Your task to perform on an android device: Open notification settings Image 0: 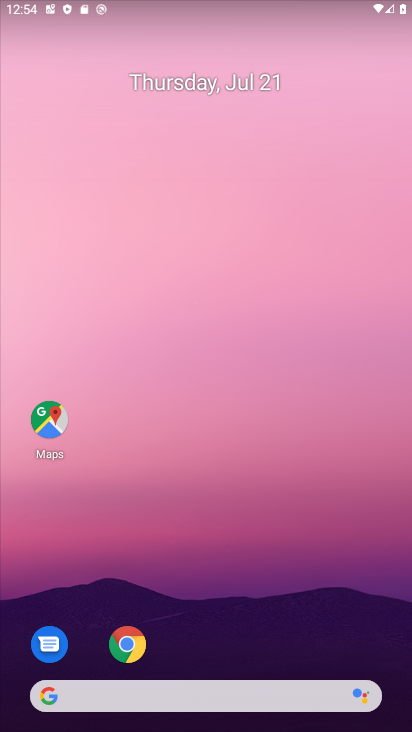
Step 0: drag from (169, 375) to (201, 292)
Your task to perform on an android device: Open notification settings Image 1: 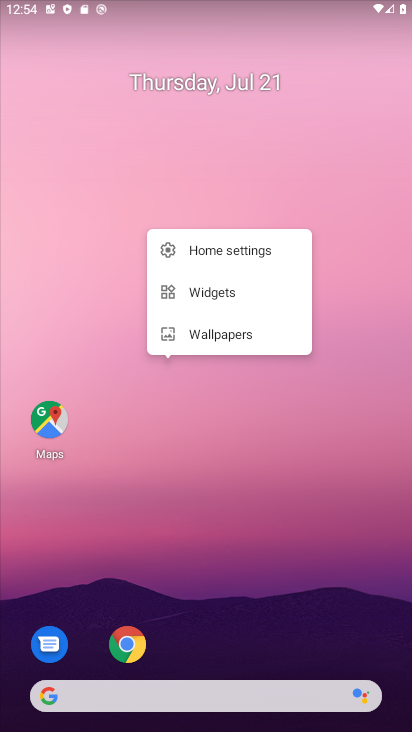
Step 1: drag from (227, 661) to (232, 595)
Your task to perform on an android device: Open notification settings Image 2: 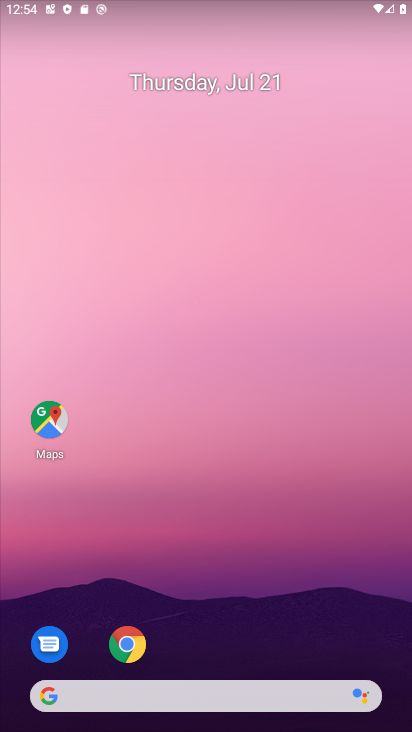
Step 2: drag from (260, 581) to (319, 4)
Your task to perform on an android device: Open notification settings Image 3: 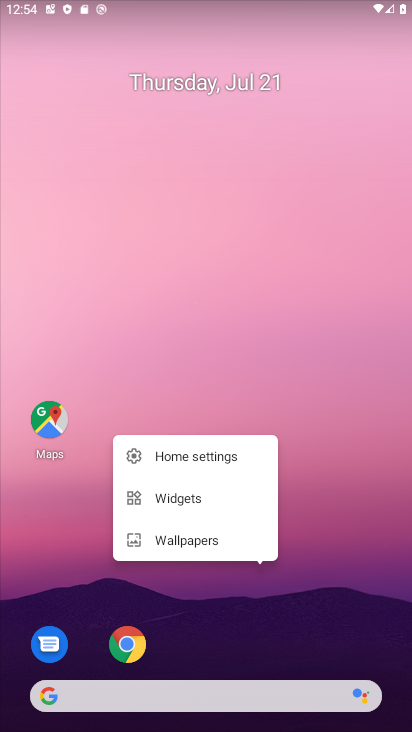
Step 3: drag from (286, 240) to (308, 268)
Your task to perform on an android device: Open notification settings Image 4: 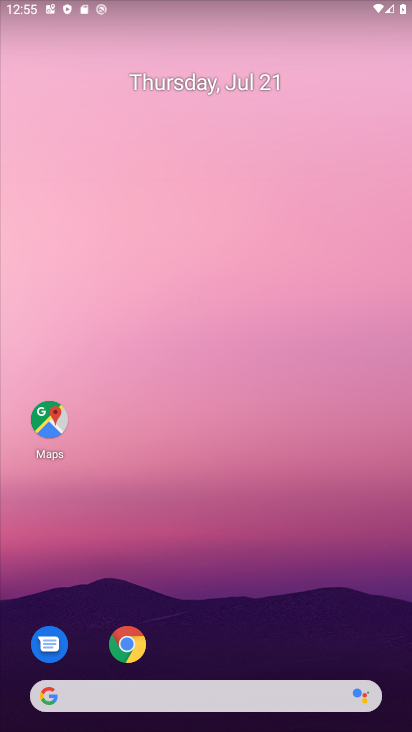
Step 4: drag from (283, 602) to (273, 19)
Your task to perform on an android device: Open notification settings Image 5: 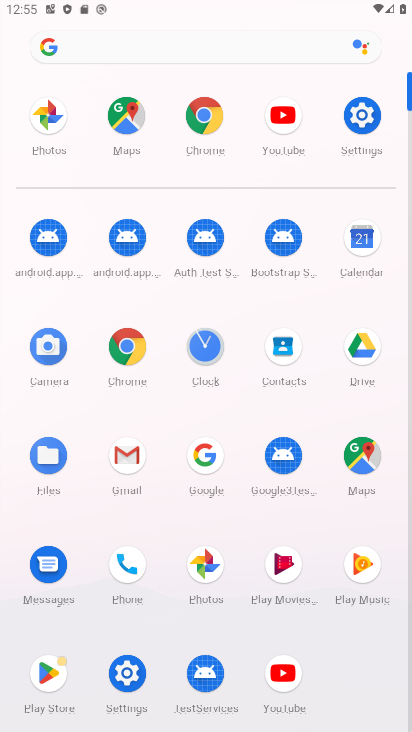
Step 5: click (104, 669)
Your task to perform on an android device: Open notification settings Image 6: 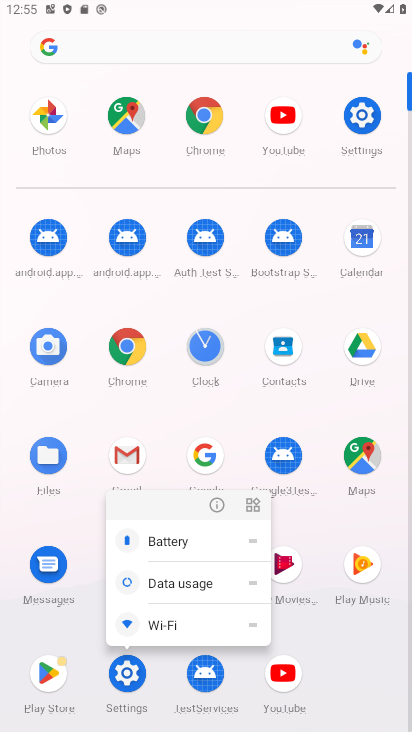
Step 6: click (114, 647)
Your task to perform on an android device: Open notification settings Image 7: 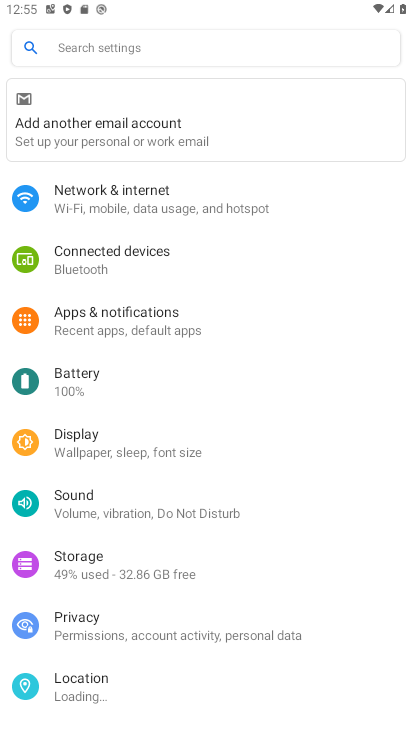
Step 7: click (99, 318)
Your task to perform on an android device: Open notification settings Image 8: 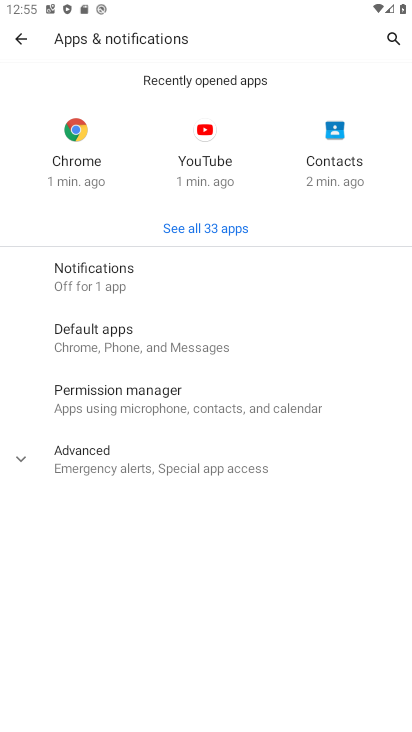
Step 8: click (88, 276)
Your task to perform on an android device: Open notification settings Image 9: 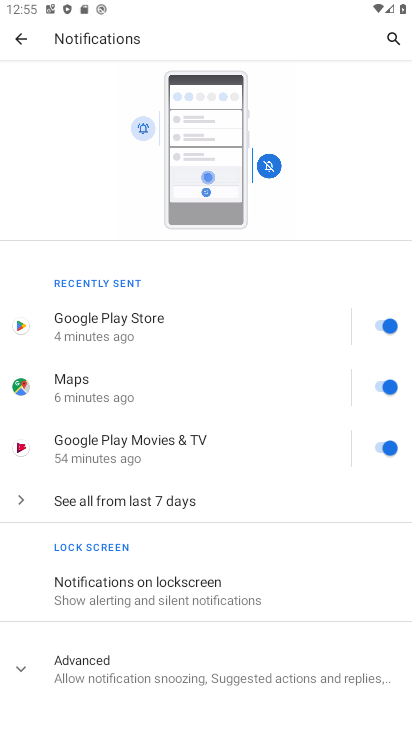
Step 9: task complete